Your task to perform on an android device: Go to Amazon Image 0: 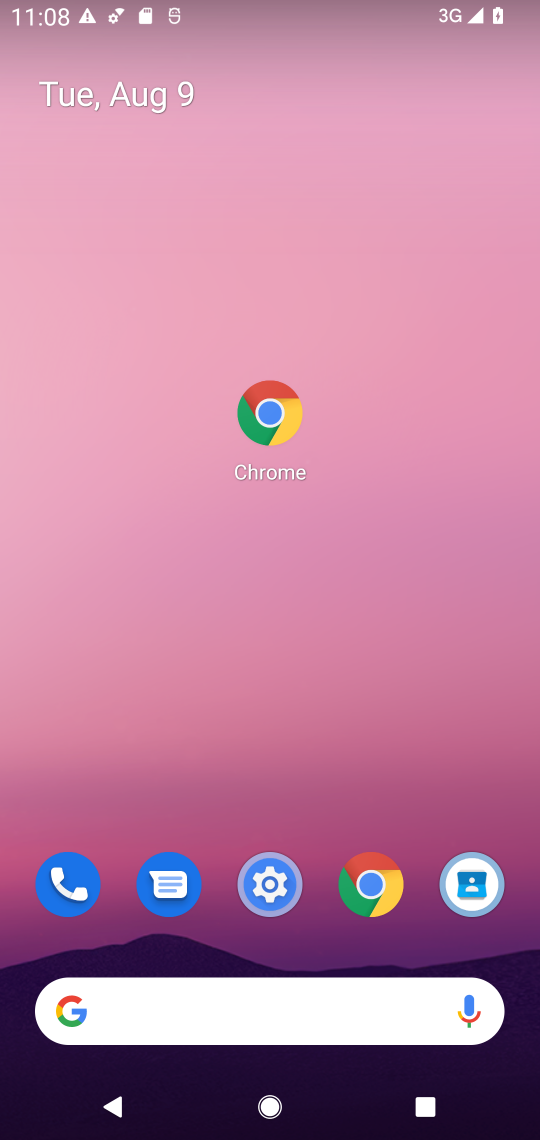
Step 0: drag from (356, 423) to (235, 471)
Your task to perform on an android device: Go to Amazon Image 1: 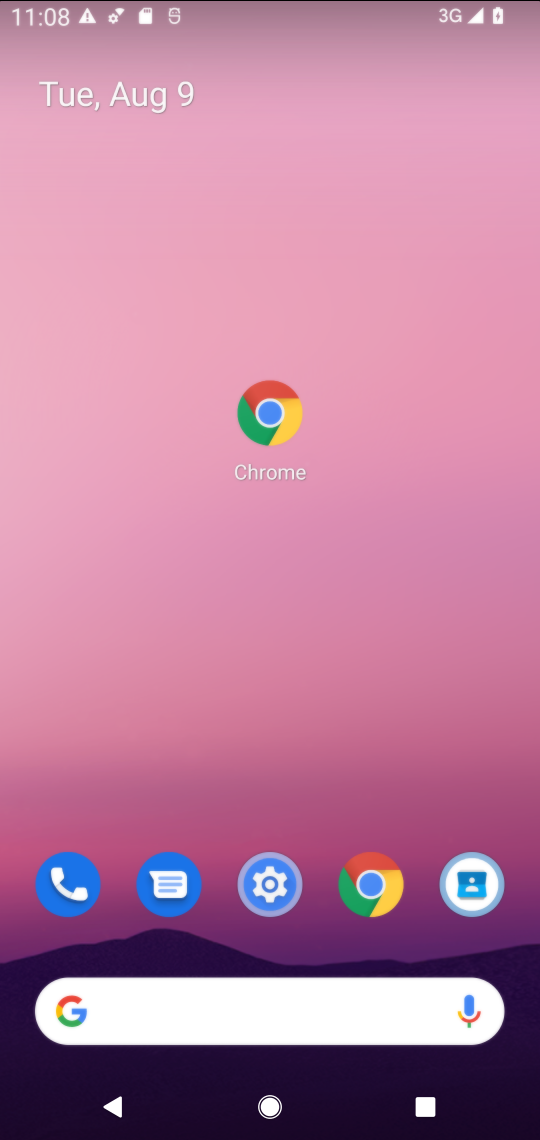
Step 1: drag from (339, 830) to (313, 441)
Your task to perform on an android device: Go to Amazon Image 2: 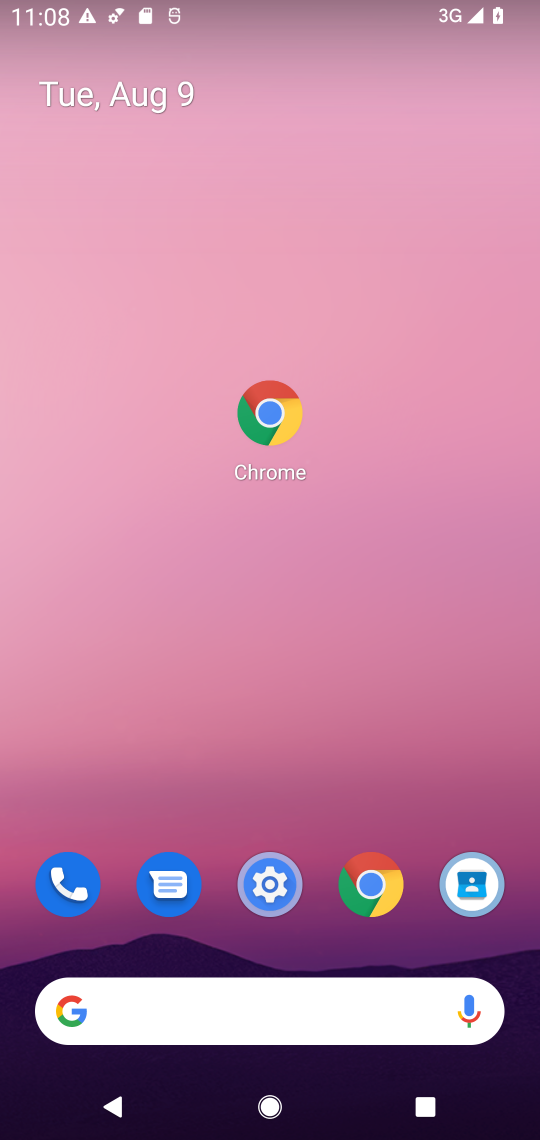
Step 2: click (303, 407)
Your task to perform on an android device: Go to Amazon Image 3: 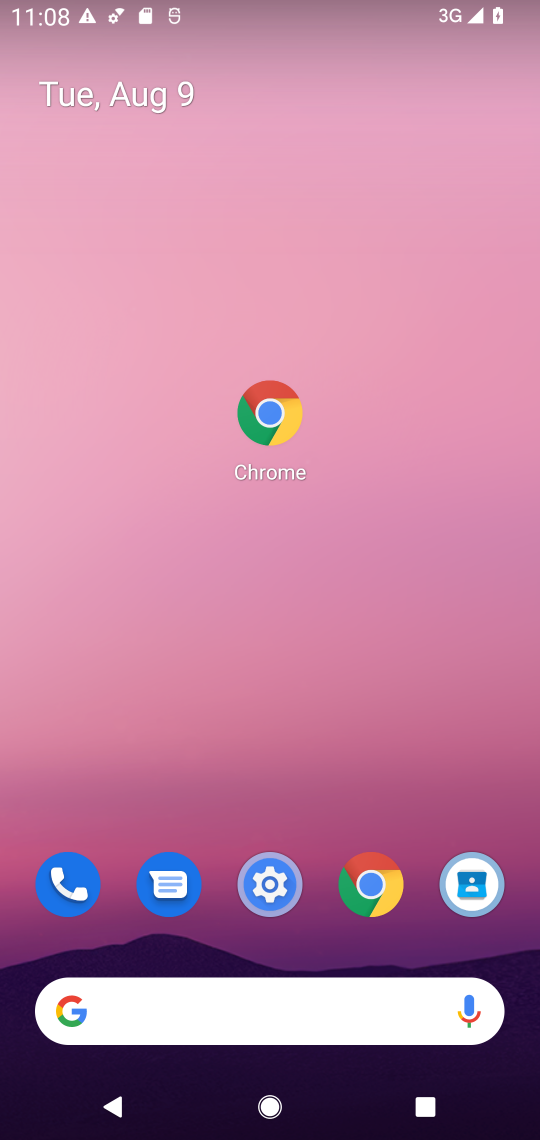
Step 3: drag from (250, 919) to (225, 397)
Your task to perform on an android device: Go to Amazon Image 4: 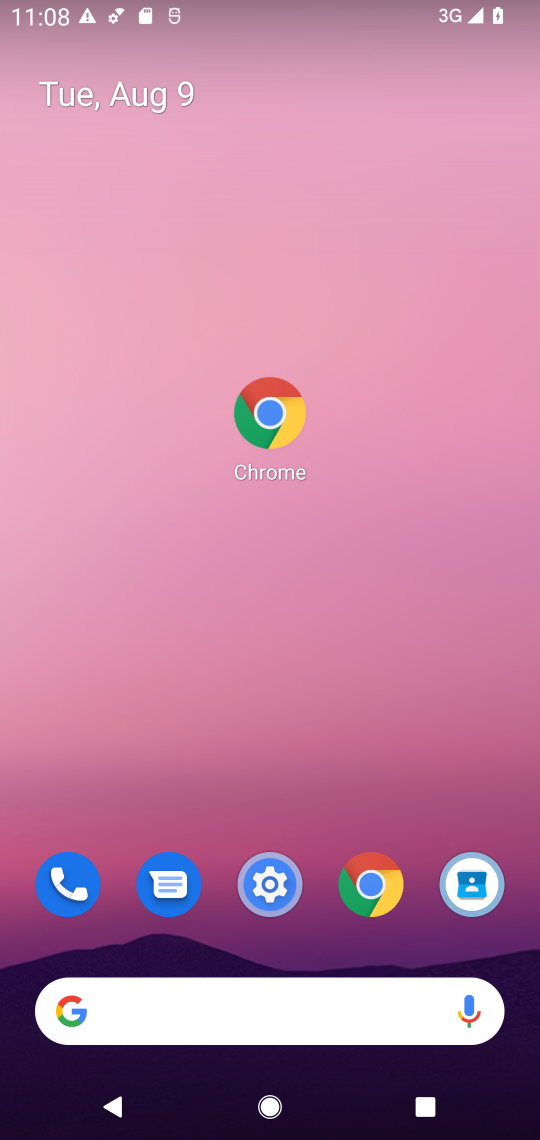
Step 4: click (376, 889)
Your task to perform on an android device: Go to Amazon Image 5: 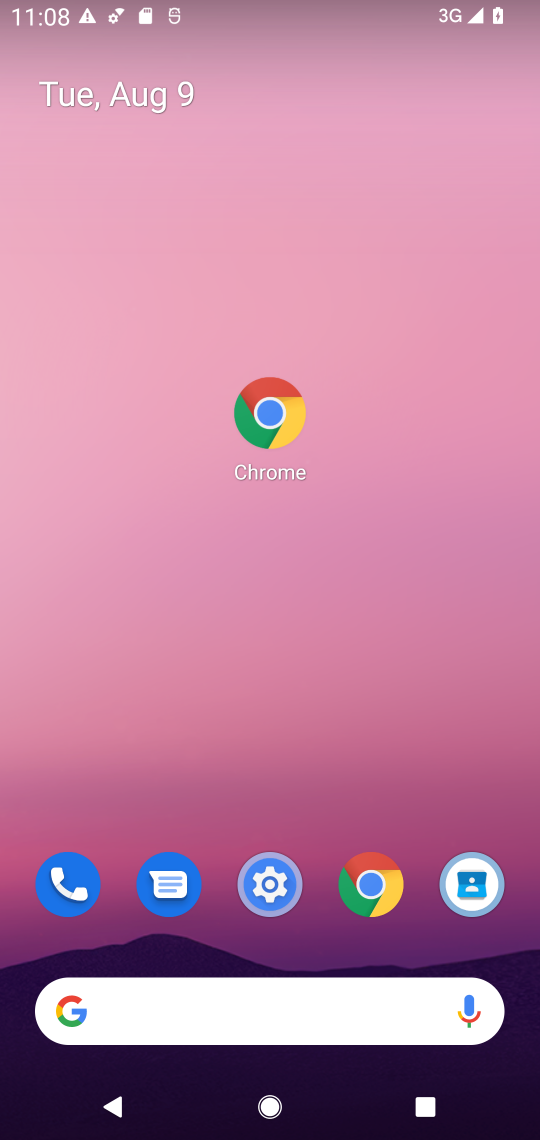
Step 5: click (369, 936)
Your task to perform on an android device: Go to Amazon Image 6: 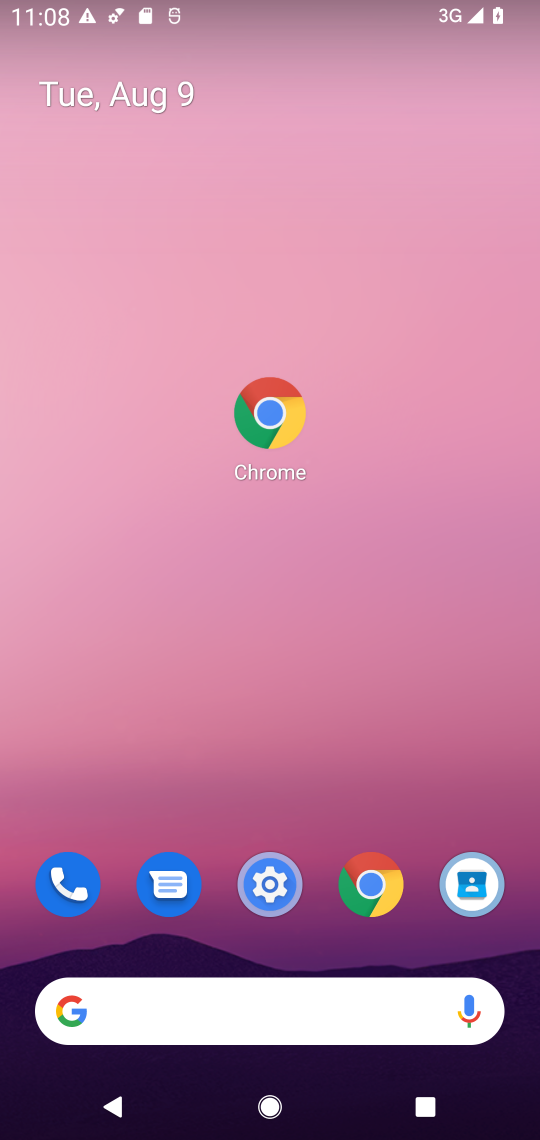
Step 6: click (378, 886)
Your task to perform on an android device: Go to Amazon Image 7: 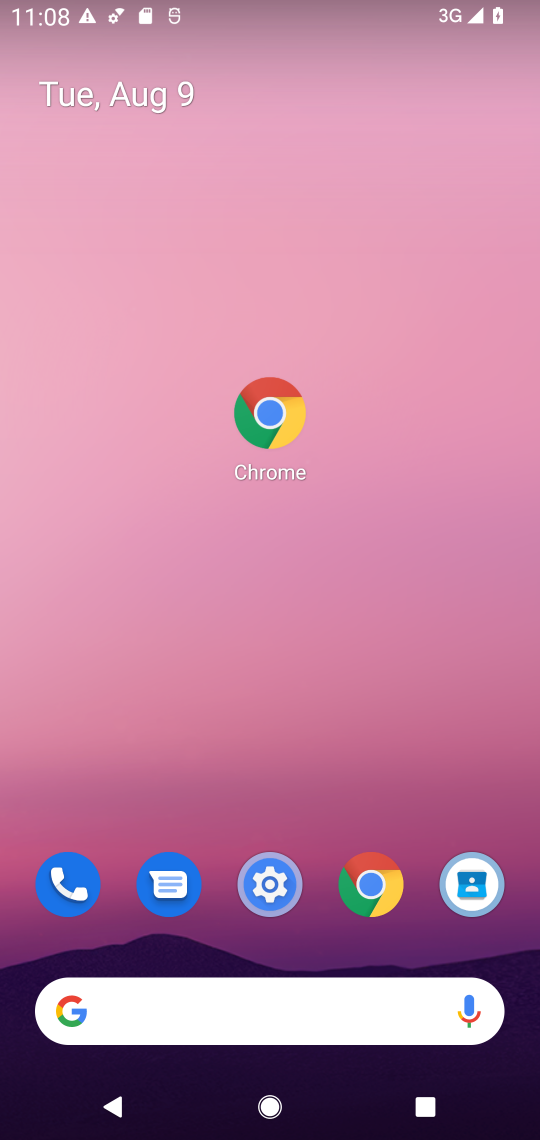
Step 7: click (376, 881)
Your task to perform on an android device: Go to Amazon Image 8: 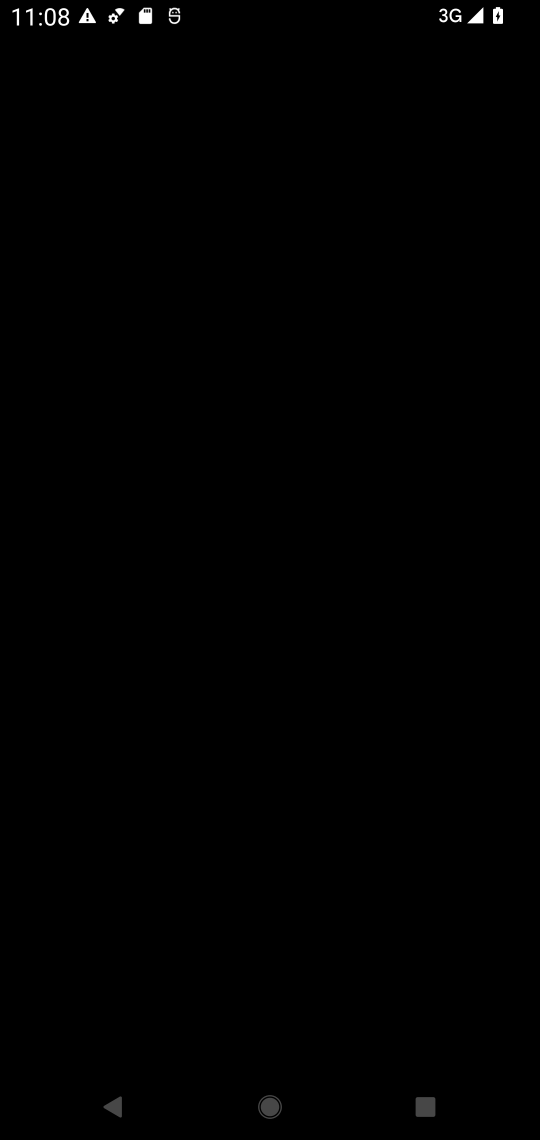
Step 8: click (245, 425)
Your task to perform on an android device: Go to Amazon Image 9: 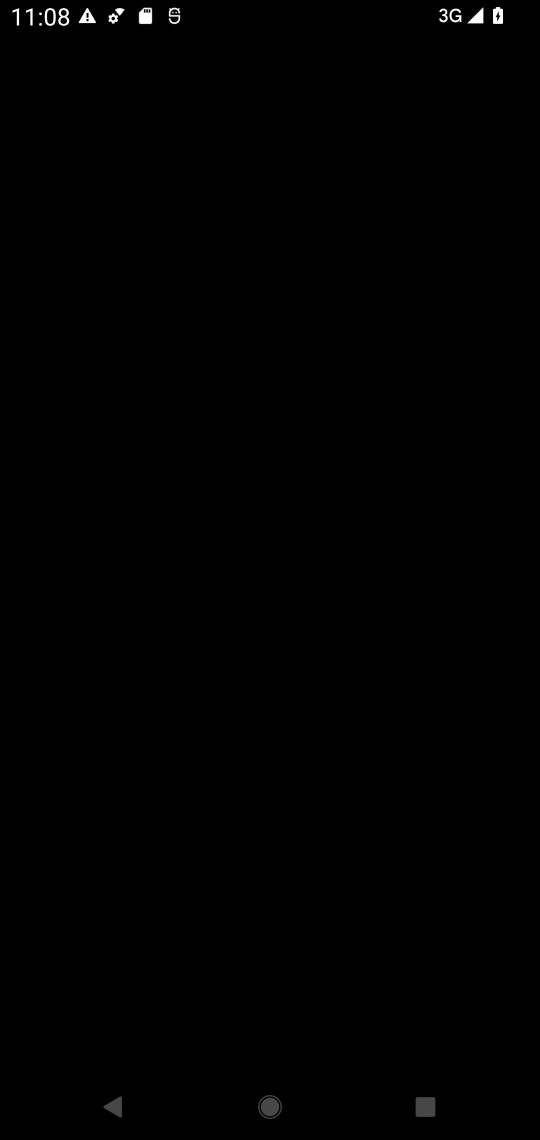
Step 9: click (257, 433)
Your task to perform on an android device: Go to Amazon Image 10: 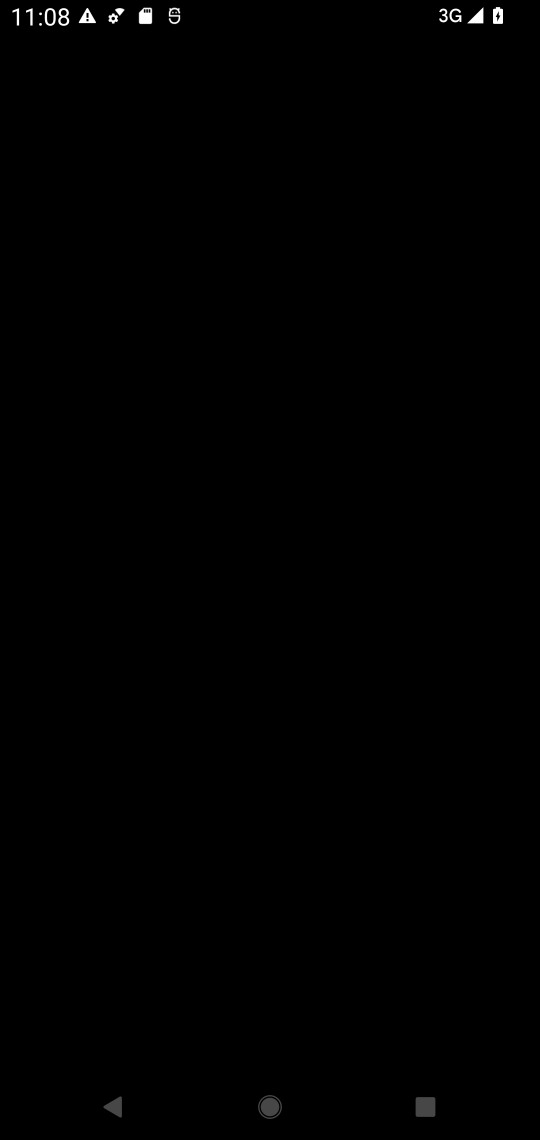
Step 10: click (286, 472)
Your task to perform on an android device: Go to Amazon Image 11: 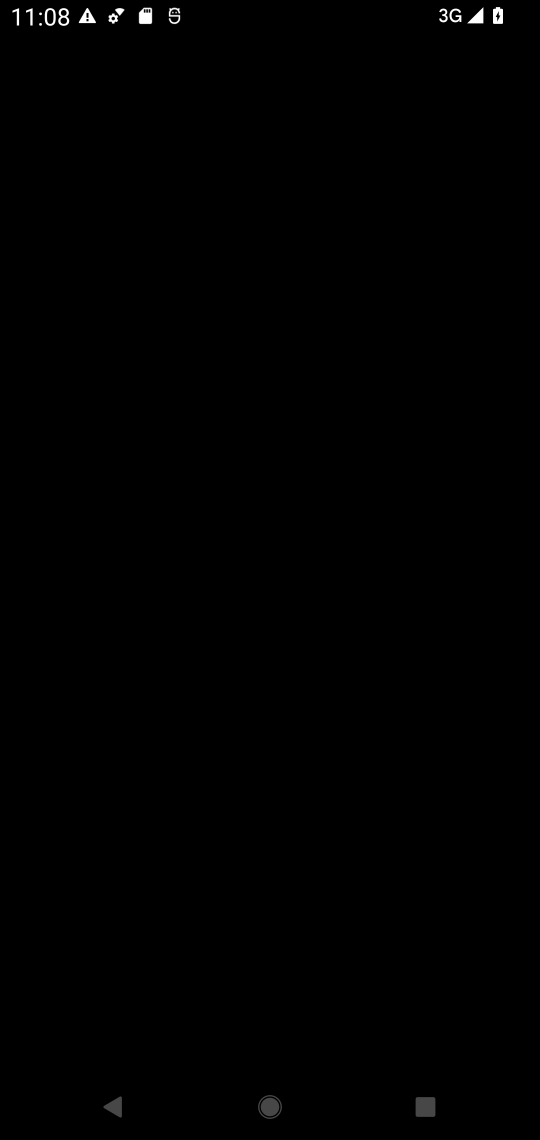
Step 11: click (288, 470)
Your task to perform on an android device: Go to Amazon Image 12: 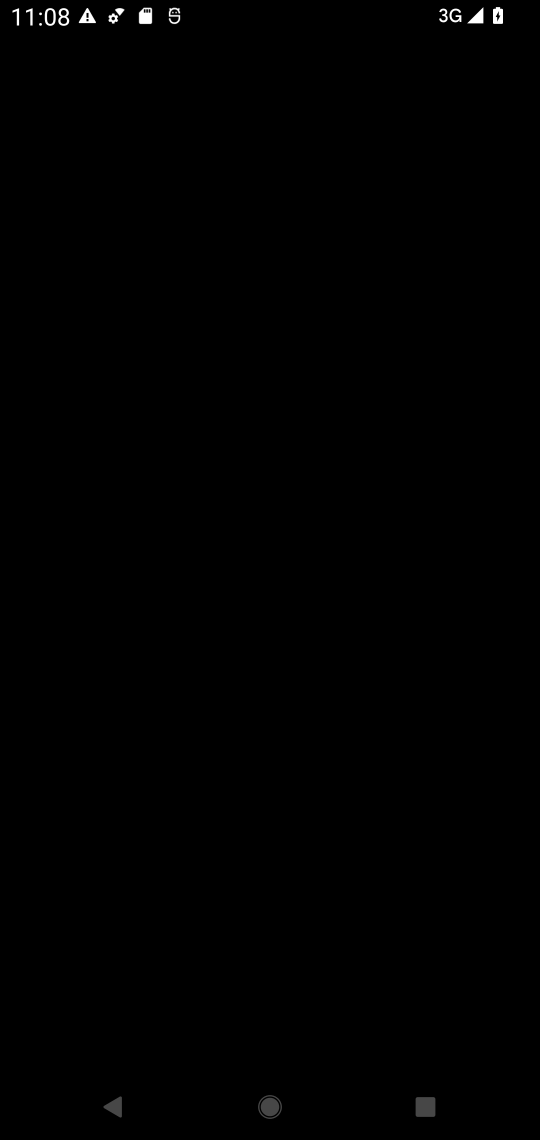
Step 12: drag from (303, 750) to (191, 98)
Your task to perform on an android device: Go to Amazon Image 13: 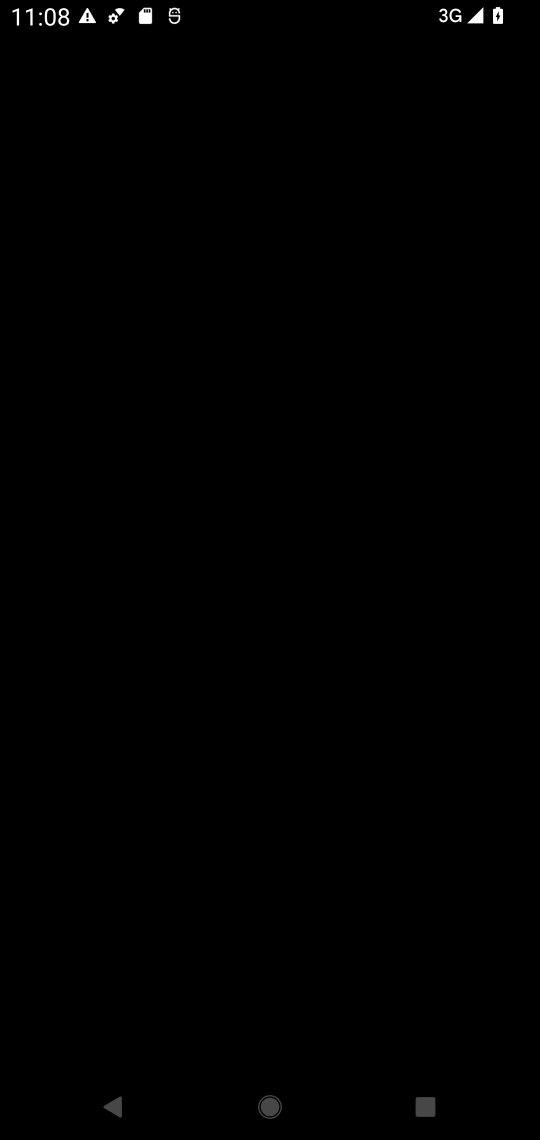
Step 13: drag from (247, 734) to (250, 14)
Your task to perform on an android device: Go to Amazon Image 14: 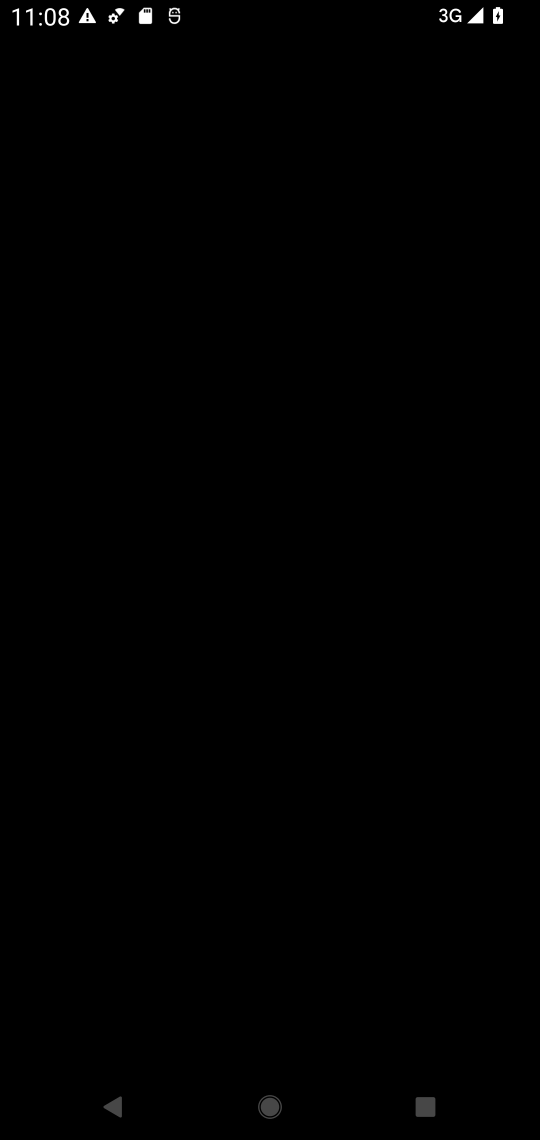
Step 14: drag from (309, 573) to (237, 46)
Your task to perform on an android device: Go to Amazon Image 15: 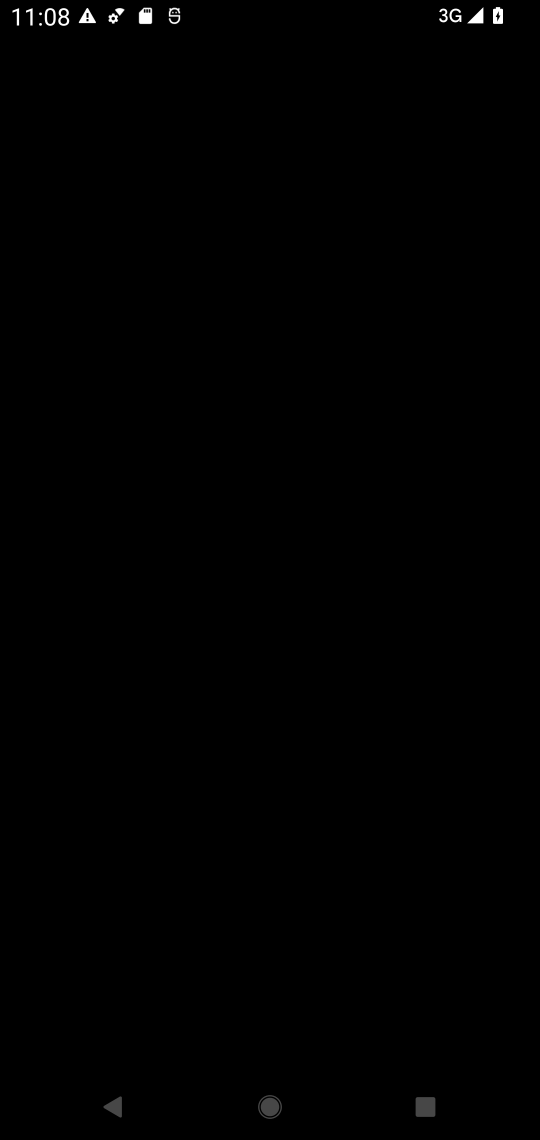
Step 15: drag from (283, 790) to (273, 327)
Your task to perform on an android device: Go to Amazon Image 16: 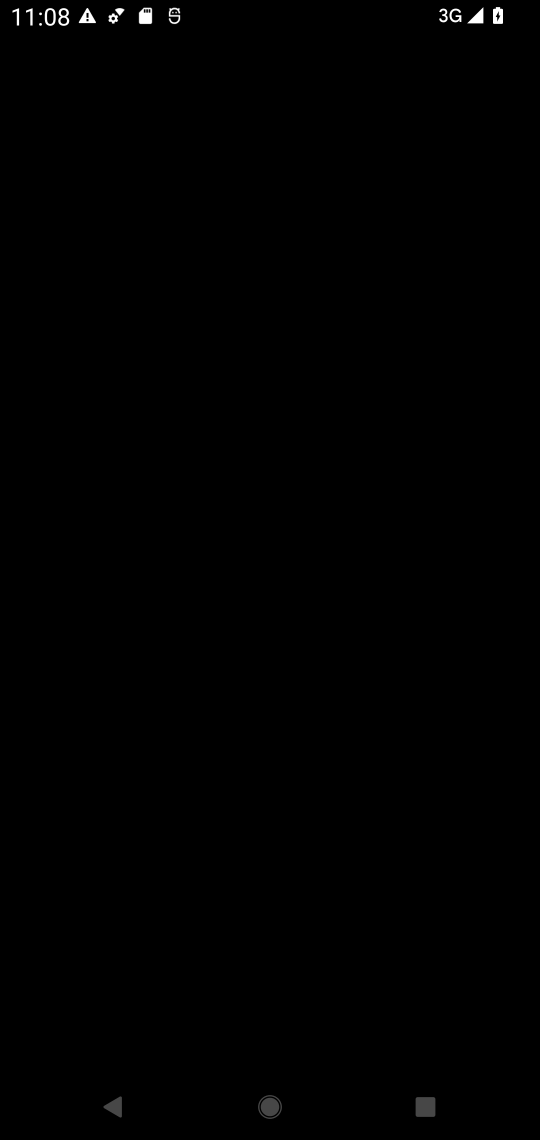
Step 16: drag from (308, 682) to (277, 213)
Your task to perform on an android device: Go to Amazon Image 17: 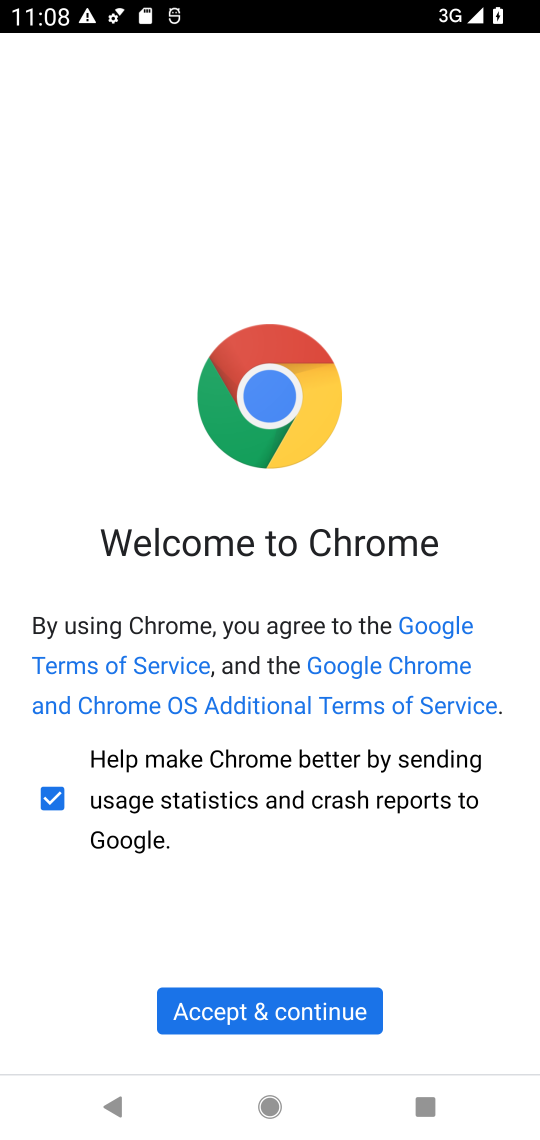
Step 17: click (299, 1010)
Your task to perform on an android device: Go to Amazon Image 18: 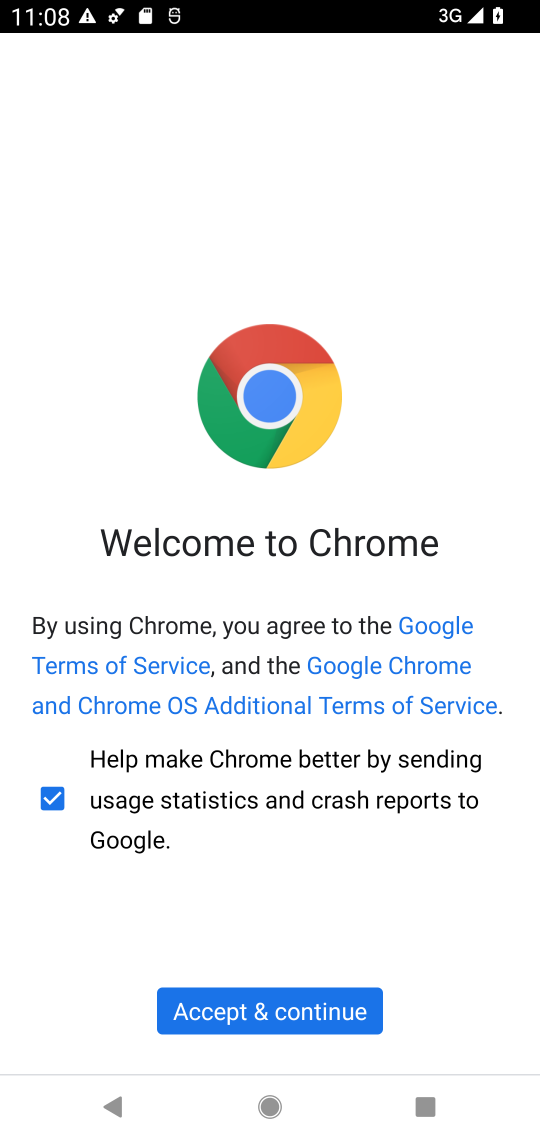
Step 18: click (283, 1024)
Your task to perform on an android device: Go to Amazon Image 19: 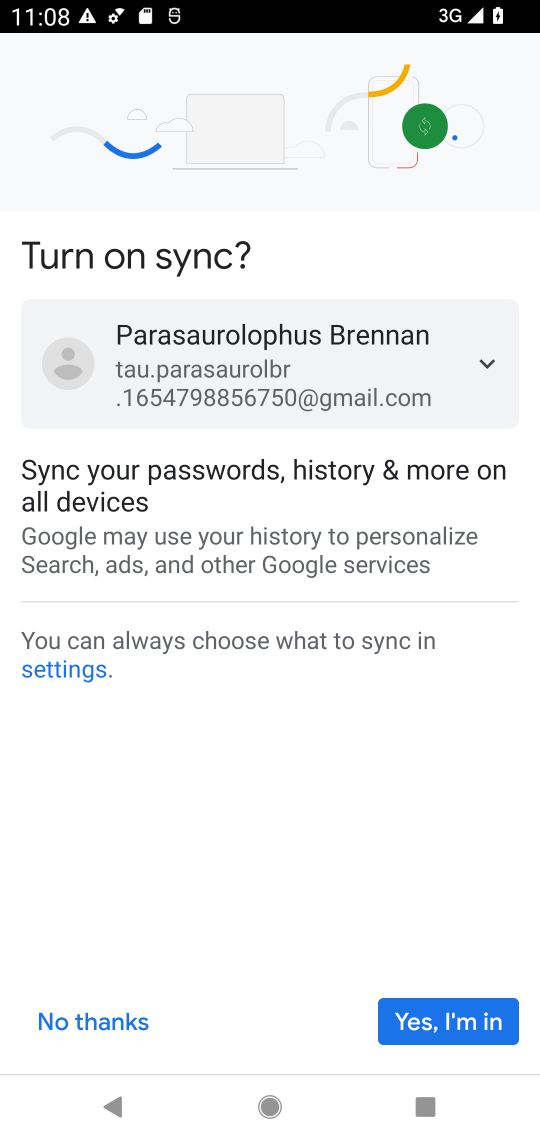
Step 19: click (109, 1033)
Your task to perform on an android device: Go to Amazon Image 20: 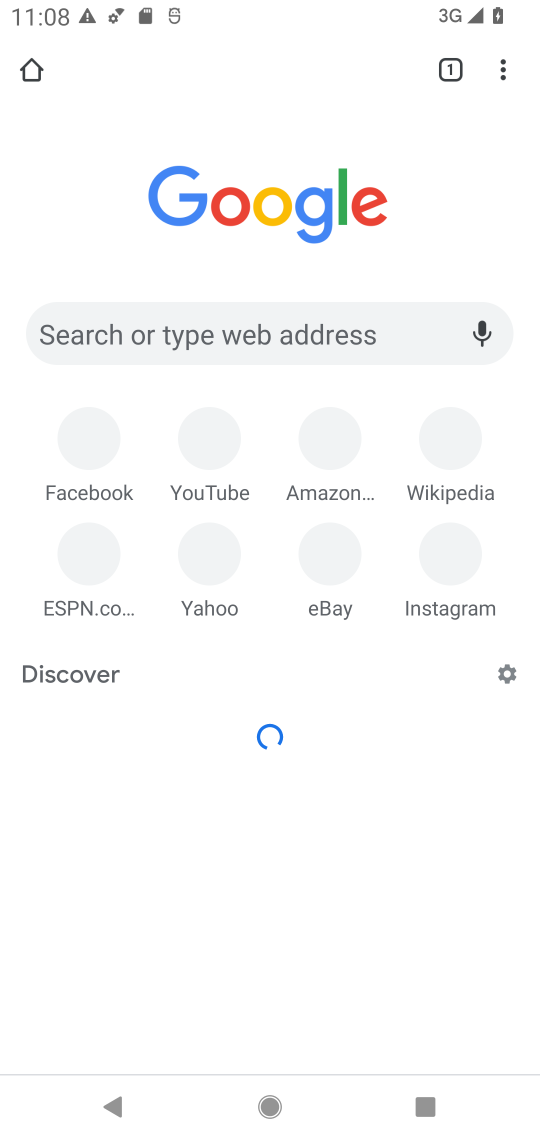
Step 20: click (100, 1031)
Your task to perform on an android device: Go to Amazon Image 21: 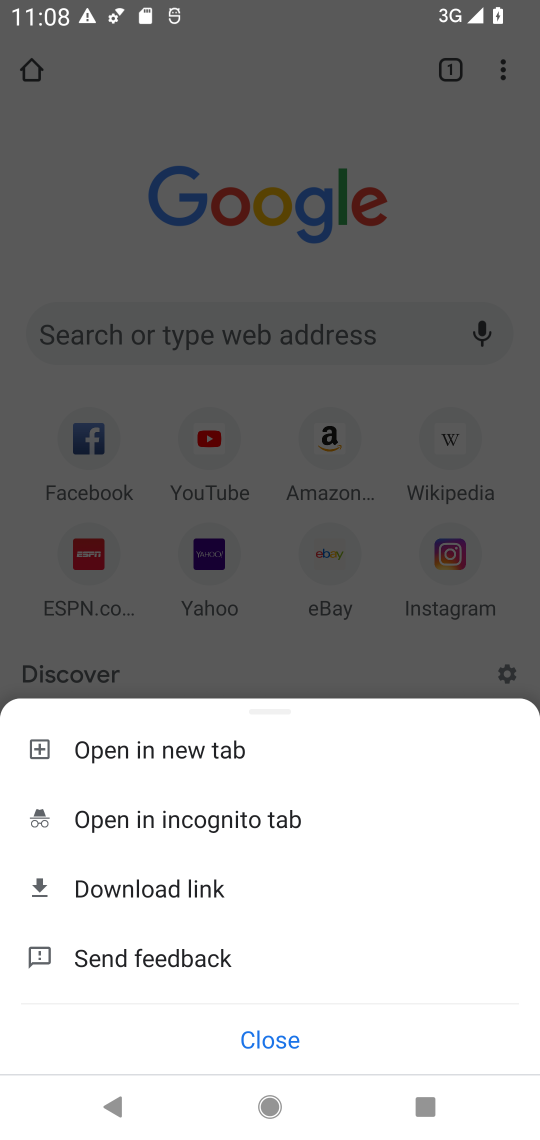
Step 21: click (209, 749)
Your task to perform on an android device: Go to Amazon Image 22: 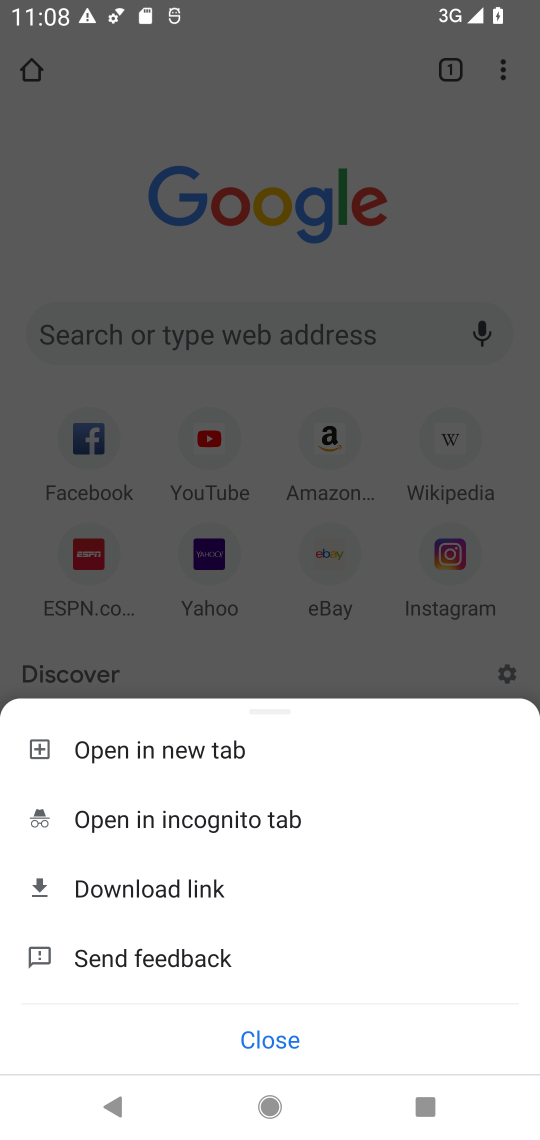
Step 22: click (216, 749)
Your task to perform on an android device: Go to Amazon Image 23: 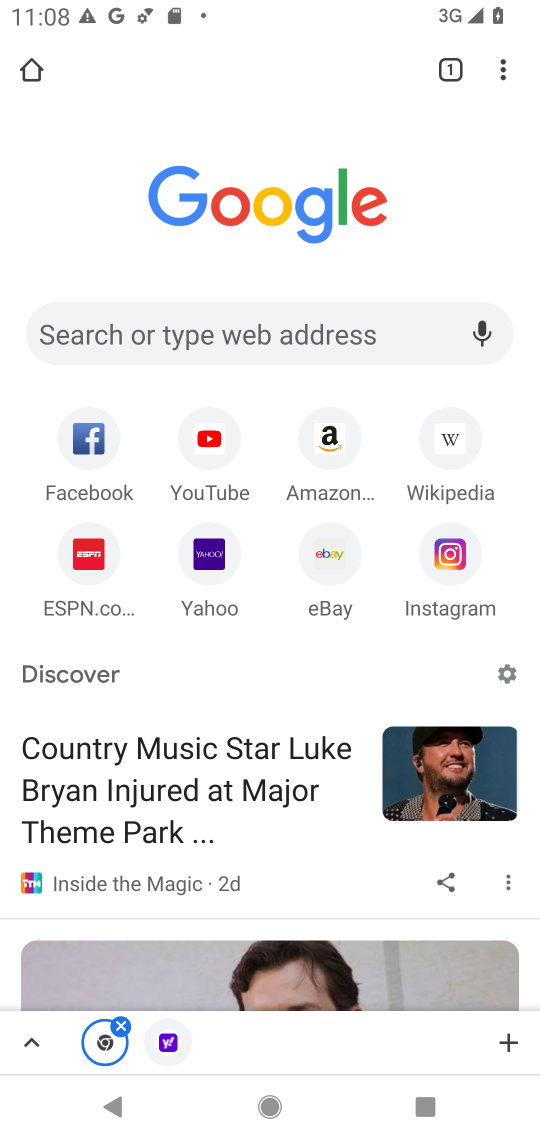
Step 23: click (331, 460)
Your task to perform on an android device: Go to Amazon Image 24: 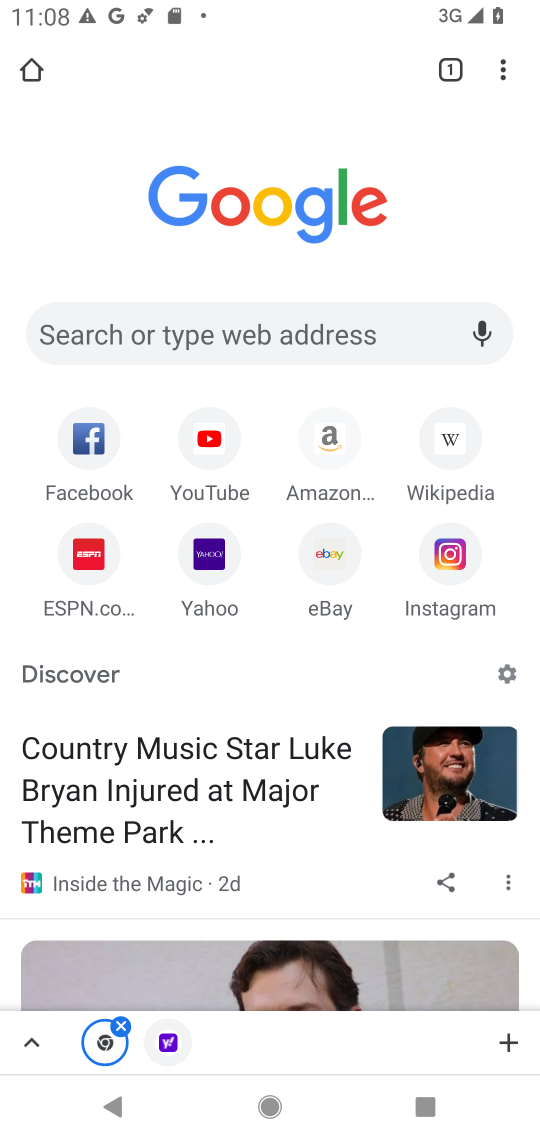
Step 24: click (289, 421)
Your task to perform on an android device: Go to Amazon Image 25: 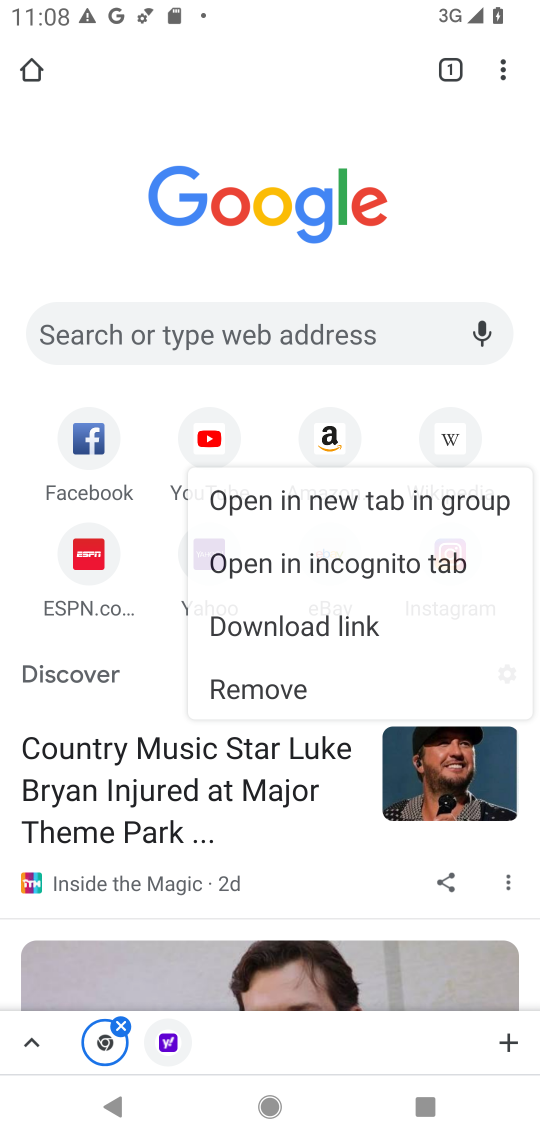
Step 25: click (322, 471)
Your task to perform on an android device: Go to Amazon Image 26: 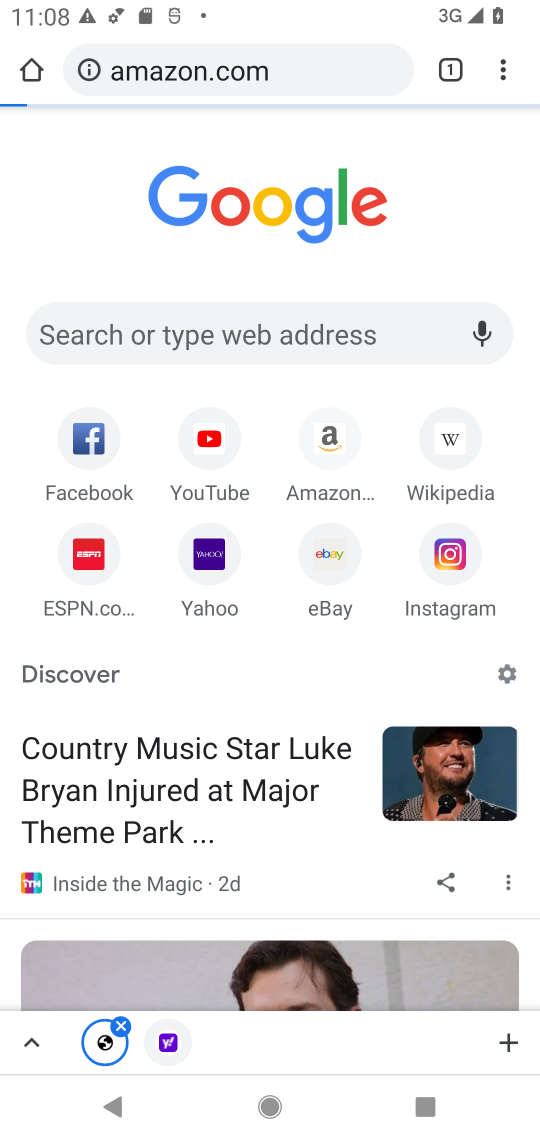
Step 26: click (329, 439)
Your task to perform on an android device: Go to Amazon Image 27: 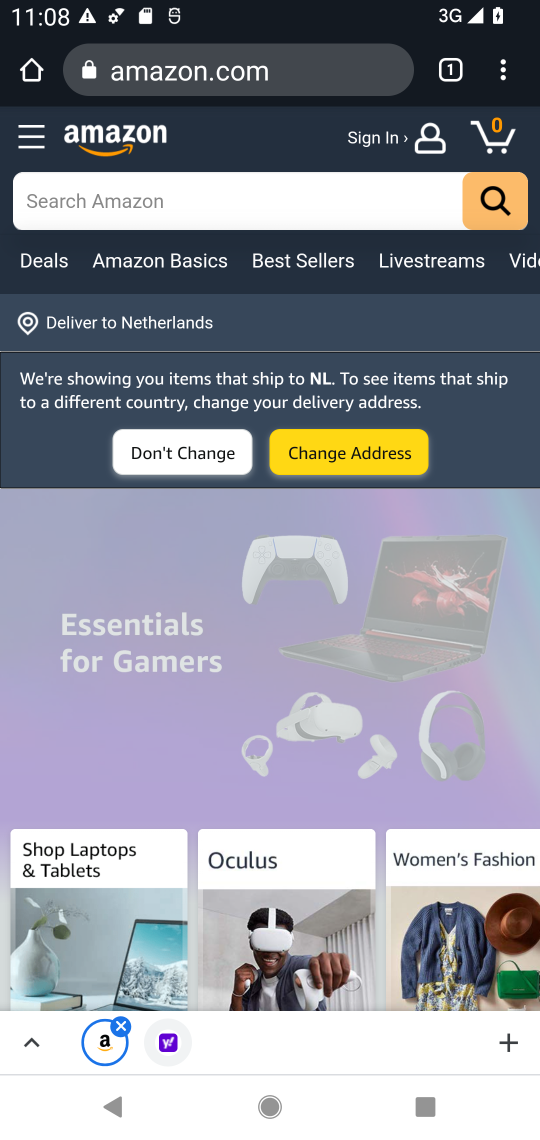
Step 27: task complete